Your task to perform on an android device: Open Google Maps Image 0: 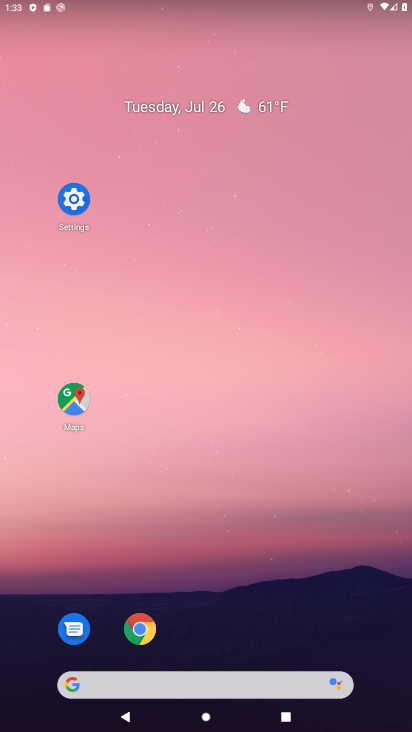
Step 0: click (73, 407)
Your task to perform on an android device: Open Google Maps Image 1: 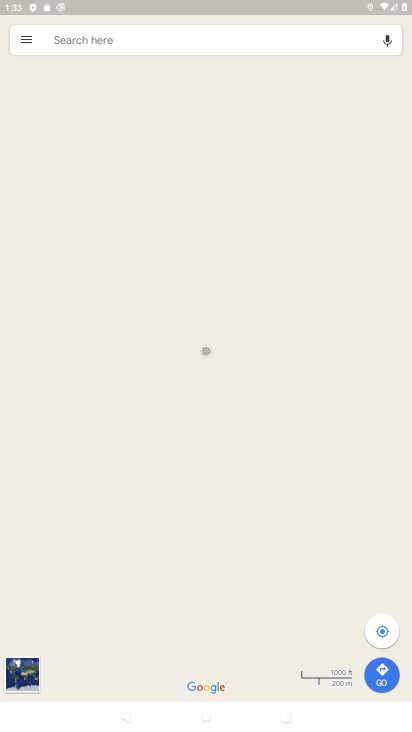
Step 1: task complete